Your task to perform on an android device: find which apps use the phone's location Image 0: 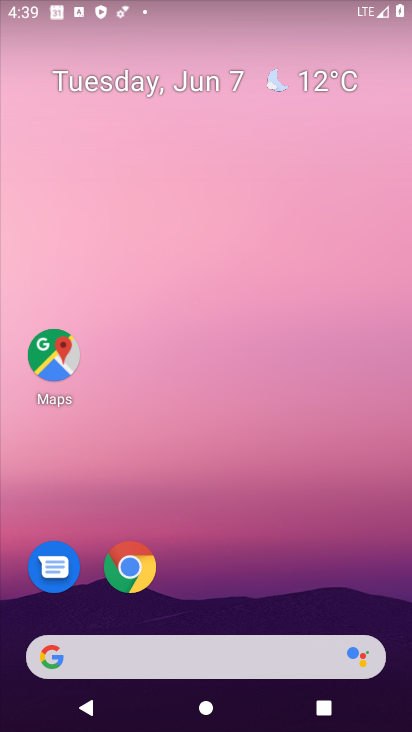
Step 0: drag from (320, 648) to (344, 40)
Your task to perform on an android device: find which apps use the phone's location Image 1: 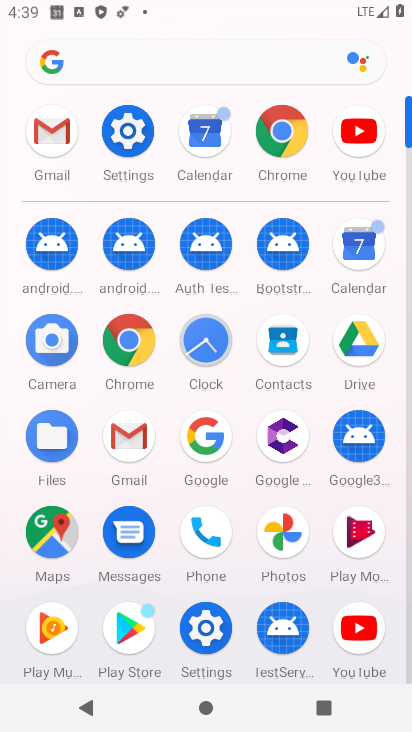
Step 1: click (140, 136)
Your task to perform on an android device: find which apps use the phone's location Image 2: 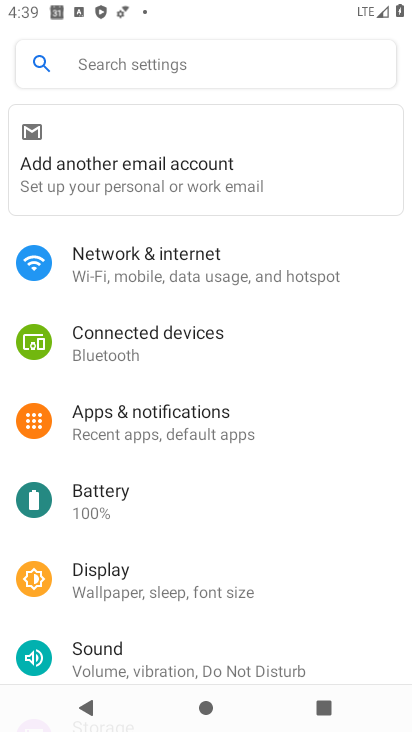
Step 2: drag from (158, 583) to (182, 193)
Your task to perform on an android device: find which apps use the phone's location Image 3: 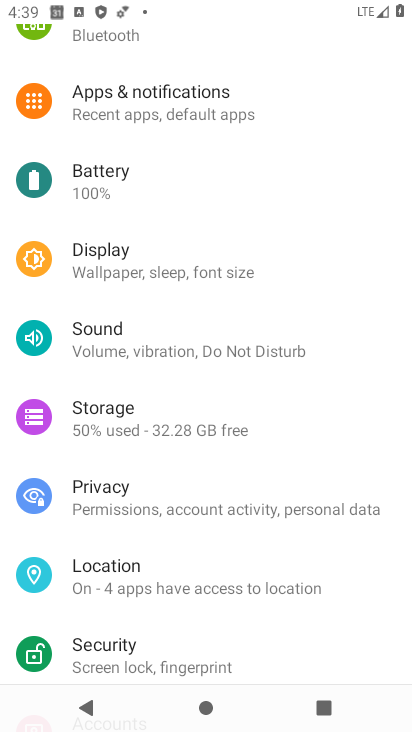
Step 3: click (110, 580)
Your task to perform on an android device: find which apps use the phone's location Image 4: 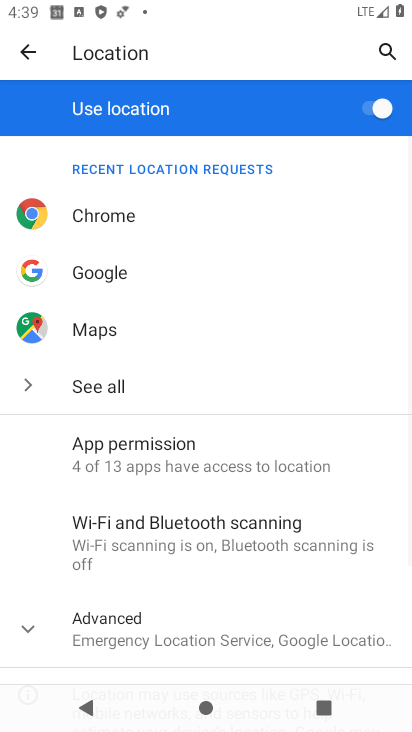
Step 4: click (229, 469)
Your task to perform on an android device: find which apps use the phone's location Image 5: 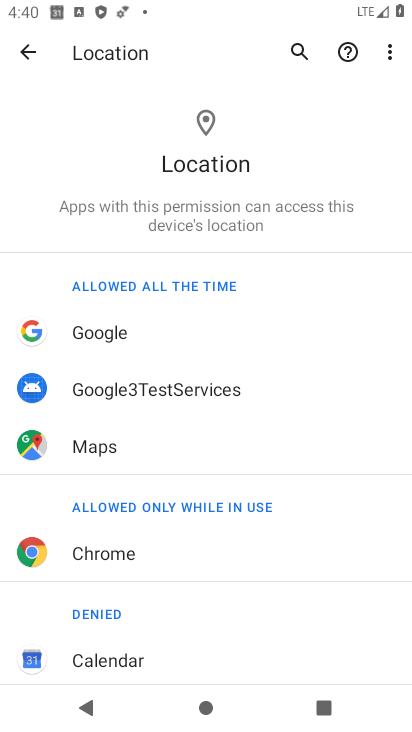
Step 5: task complete